Your task to perform on an android device: Find coffee shops on Maps Image 0: 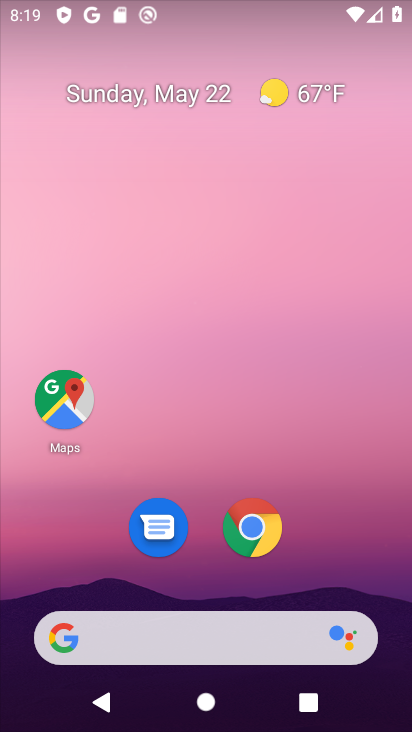
Step 0: press home button
Your task to perform on an android device: Find coffee shops on Maps Image 1: 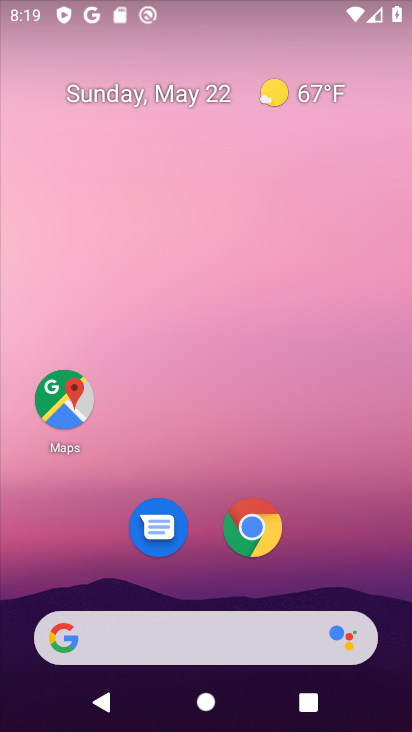
Step 1: drag from (203, 586) to (193, 77)
Your task to perform on an android device: Find coffee shops on Maps Image 2: 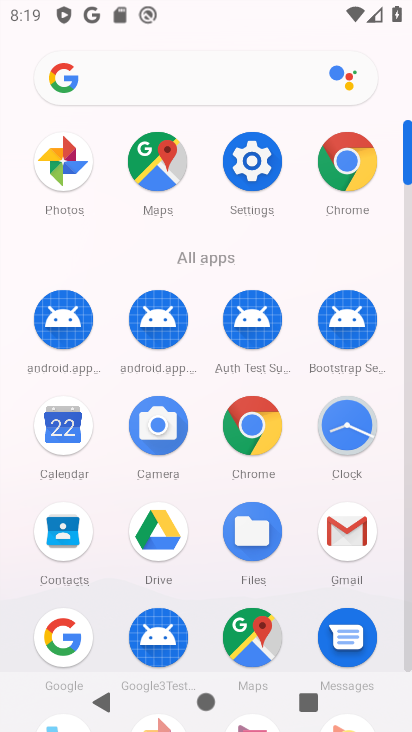
Step 2: click (251, 631)
Your task to perform on an android device: Find coffee shops on Maps Image 3: 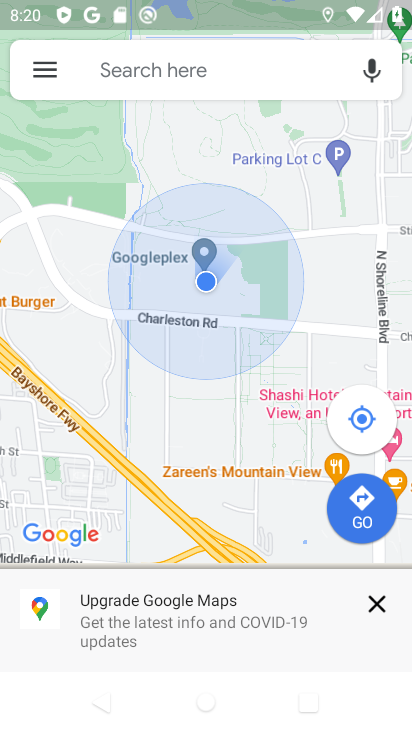
Step 3: click (378, 604)
Your task to perform on an android device: Find coffee shops on Maps Image 4: 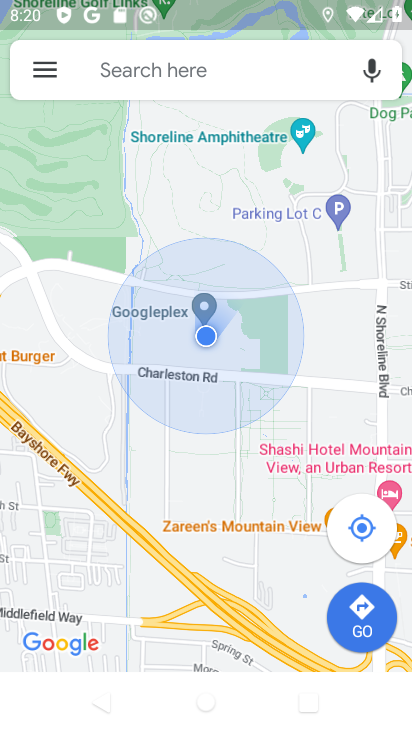
Step 4: click (127, 73)
Your task to perform on an android device: Find coffee shops on Maps Image 5: 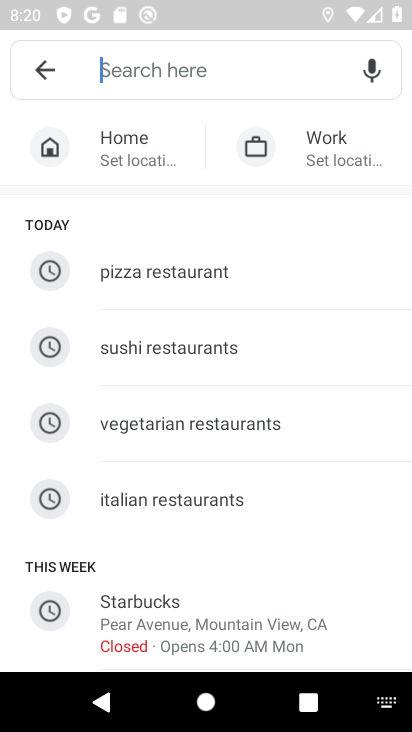
Step 5: type "coffee"
Your task to perform on an android device: Find coffee shops on Maps Image 6: 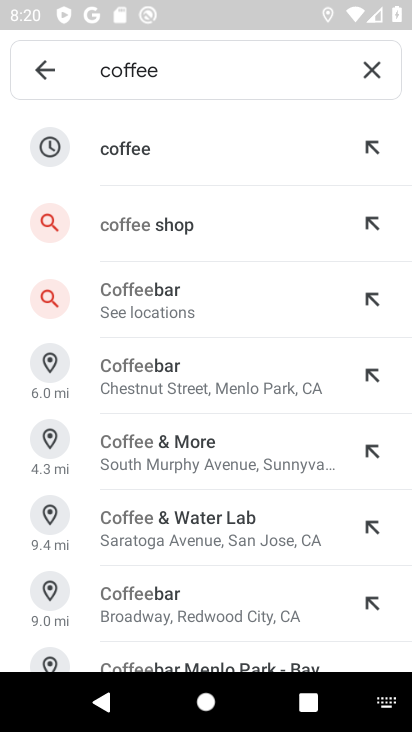
Step 6: click (195, 159)
Your task to perform on an android device: Find coffee shops on Maps Image 7: 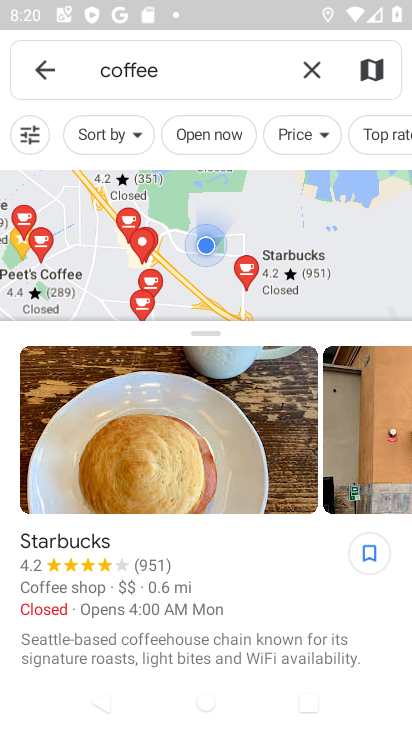
Step 7: task complete